Your task to perform on an android device: change keyboard looks Image 0: 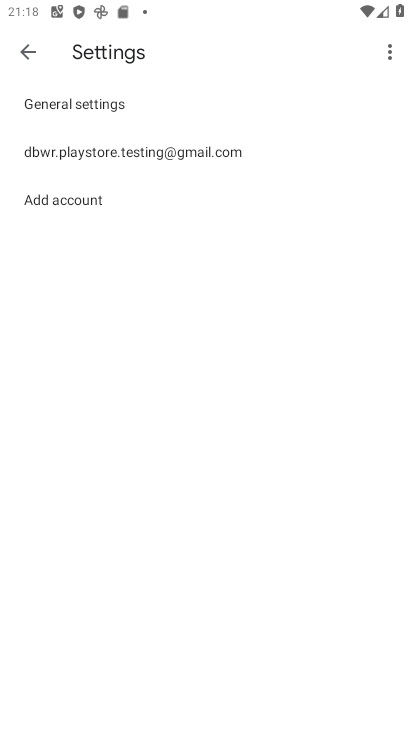
Step 0: press home button
Your task to perform on an android device: change keyboard looks Image 1: 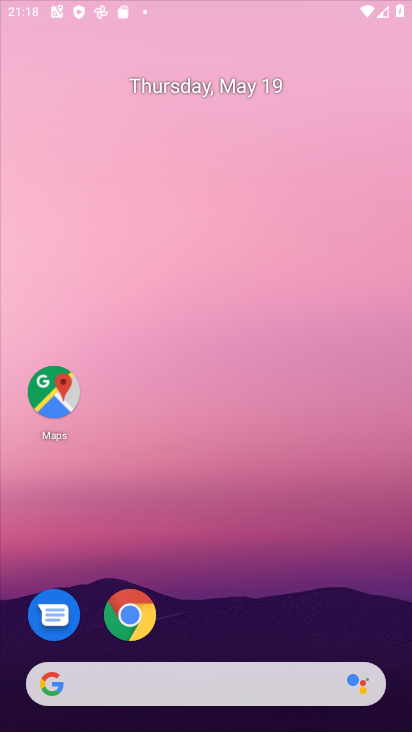
Step 1: drag from (238, 609) to (202, 125)
Your task to perform on an android device: change keyboard looks Image 2: 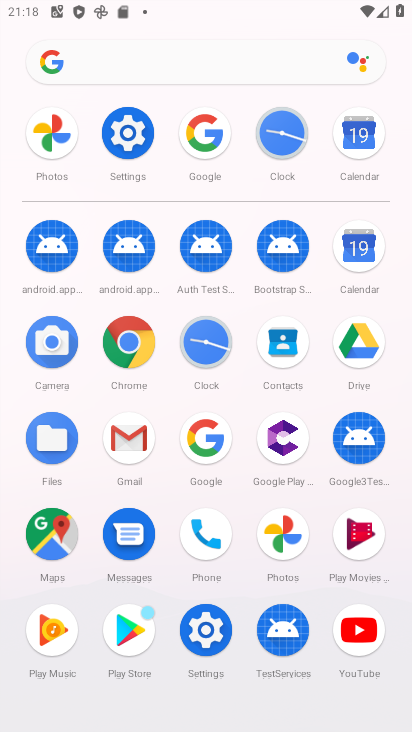
Step 2: click (126, 123)
Your task to perform on an android device: change keyboard looks Image 3: 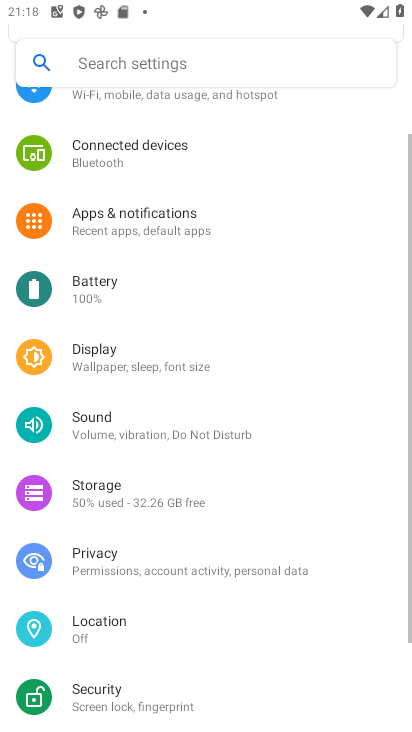
Step 3: drag from (291, 617) to (259, 85)
Your task to perform on an android device: change keyboard looks Image 4: 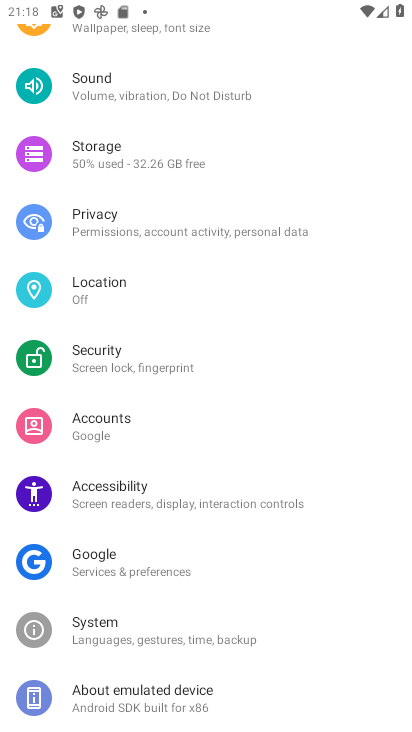
Step 4: click (119, 633)
Your task to perform on an android device: change keyboard looks Image 5: 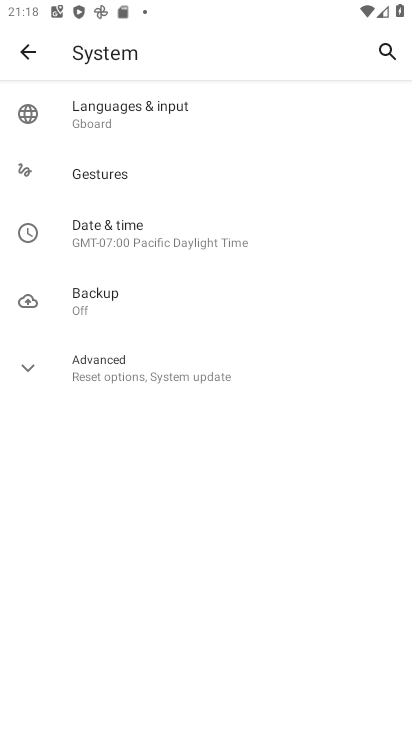
Step 5: click (146, 114)
Your task to perform on an android device: change keyboard looks Image 6: 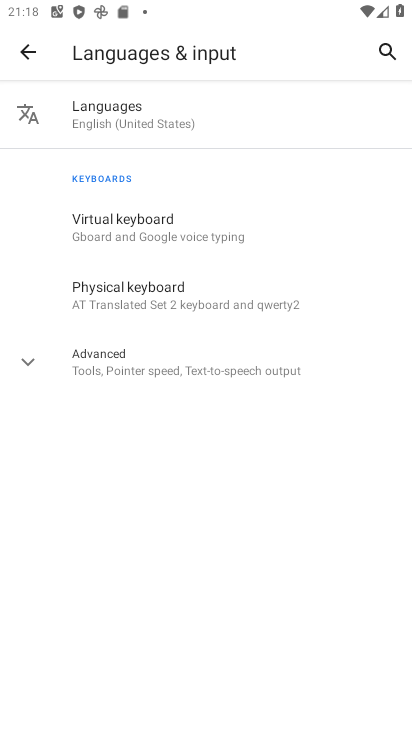
Step 6: click (158, 226)
Your task to perform on an android device: change keyboard looks Image 7: 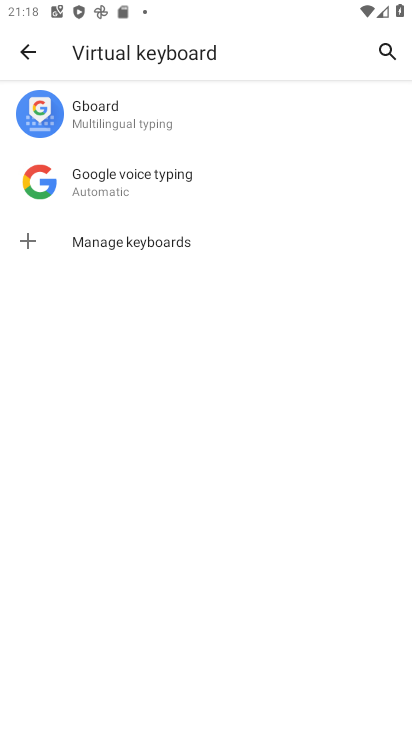
Step 7: click (117, 125)
Your task to perform on an android device: change keyboard looks Image 8: 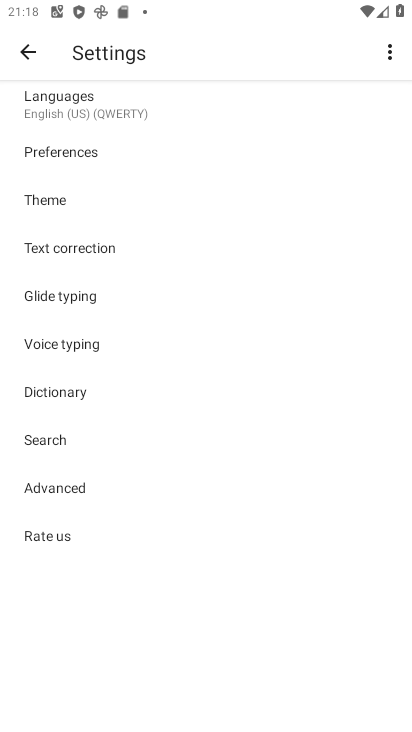
Step 8: click (96, 200)
Your task to perform on an android device: change keyboard looks Image 9: 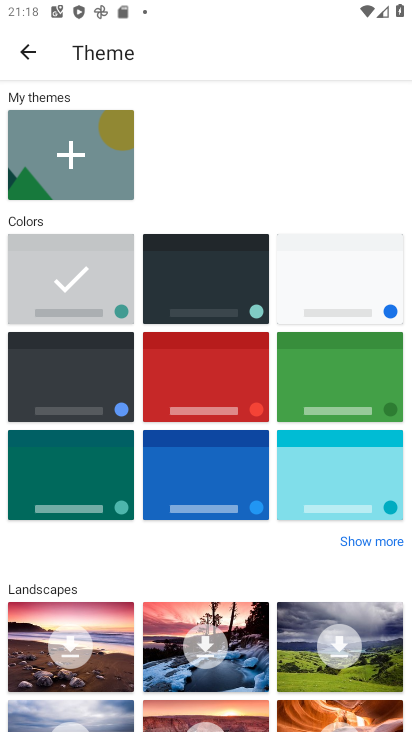
Step 9: click (177, 275)
Your task to perform on an android device: change keyboard looks Image 10: 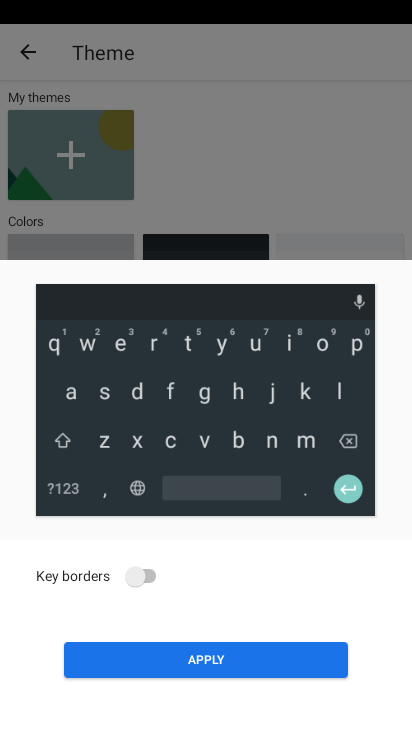
Step 10: click (203, 661)
Your task to perform on an android device: change keyboard looks Image 11: 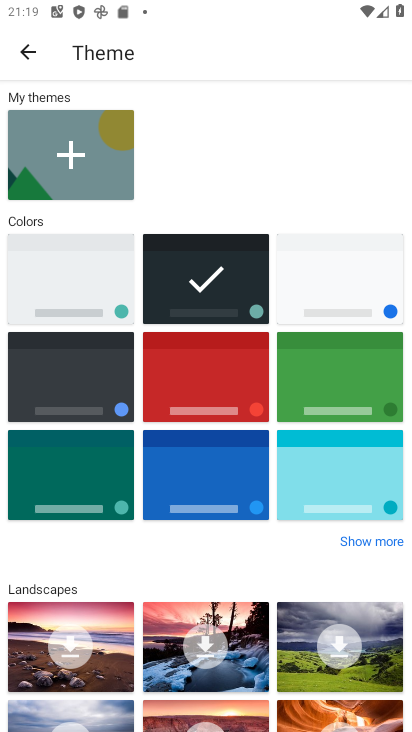
Step 11: task complete